Your task to perform on an android device: all mails in gmail Image 0: 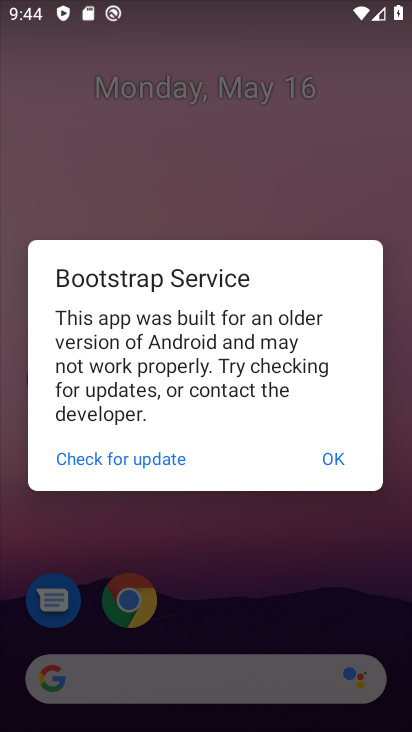
Step 0: click (321, 462)
Your task to perform on an android device: all mails in gmail Image 1: 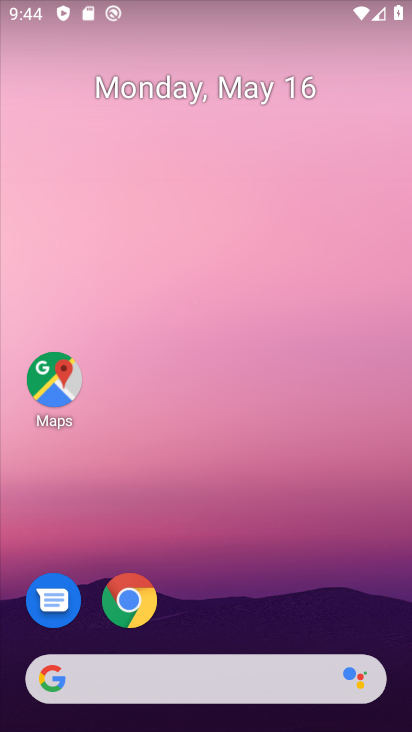
Step 1: drag from (232, 621) to (311, 102)
Your task to perform on an android device: all mails in gmail Image 2: 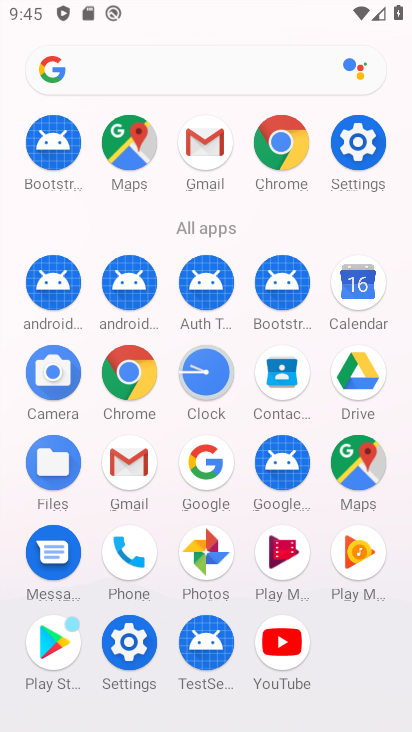
Step 2: click (218, 159)
Your task to perform on an android device: all mails in gmail Image 3: 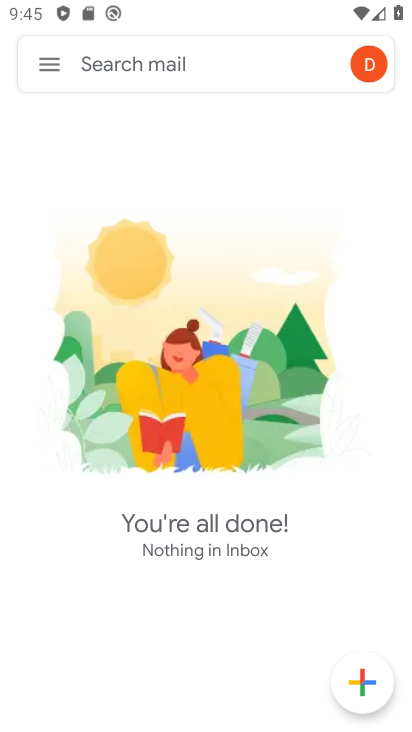
Step 3: click (45, 66)
Your task to perform on an android device: all mails in gmail Image 4: 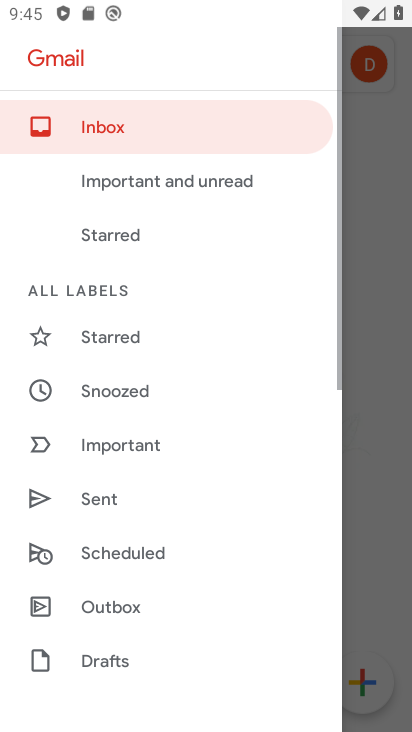
Step 4: drag from (187, 544) to (181, 208)
Your task to perform on an android device: all mails in gmail Image 5: 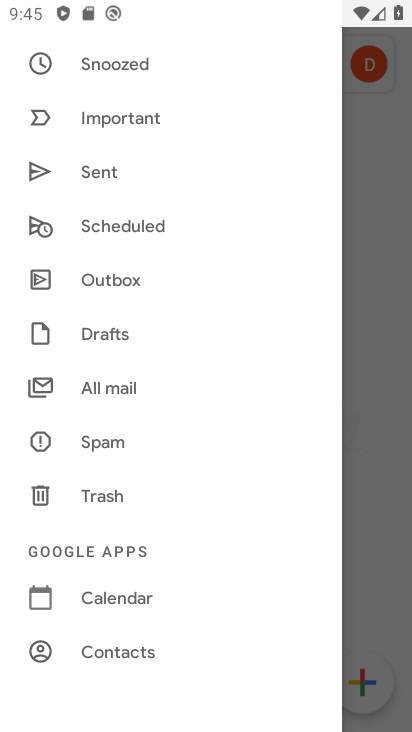
Step 5: click (136, 391)
Your task to perform on an android device: all mails in gmail Image 6: 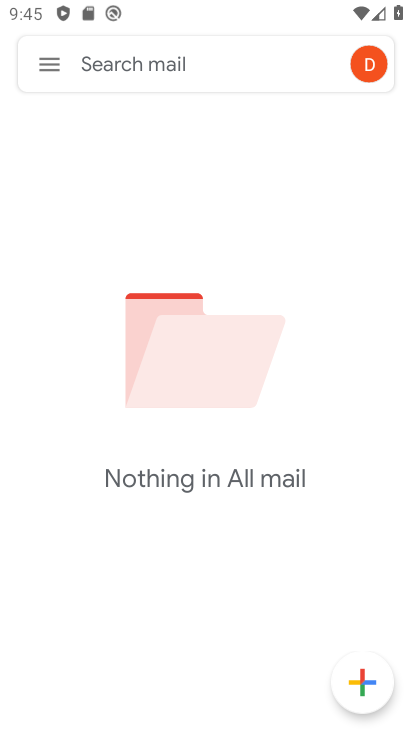
Step 6: task complete